Your task to perform on an android device: Go to Google maps Image 0: 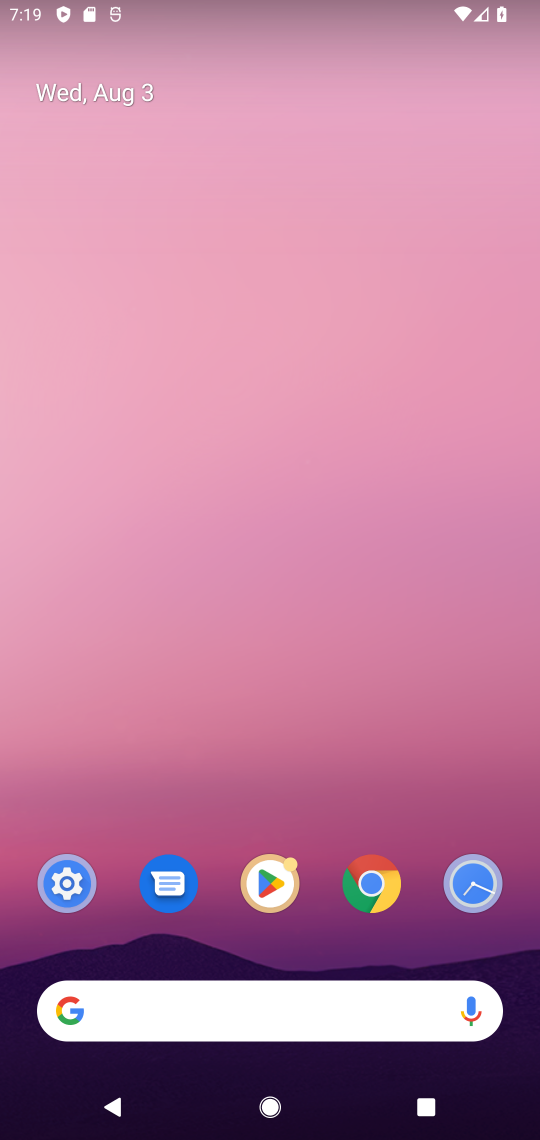
Step 0: drag from (399, 825) to (248, 246)
Your task to perform on an android device: Go to Google maps Image 1: 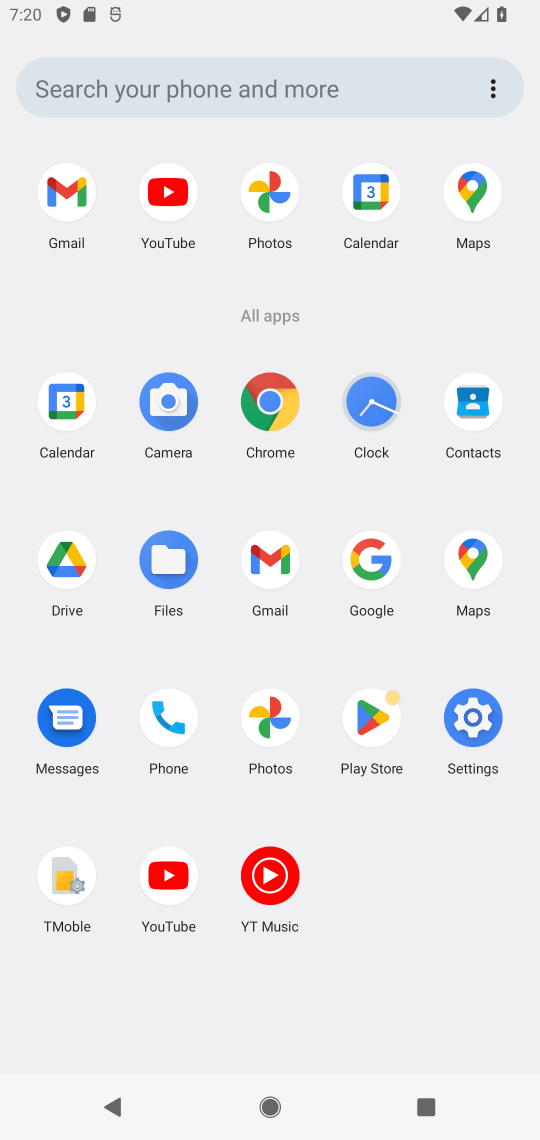
Step 1: click (489, 570)
Your task to perform on an android device: Go to Google maps Image 2: 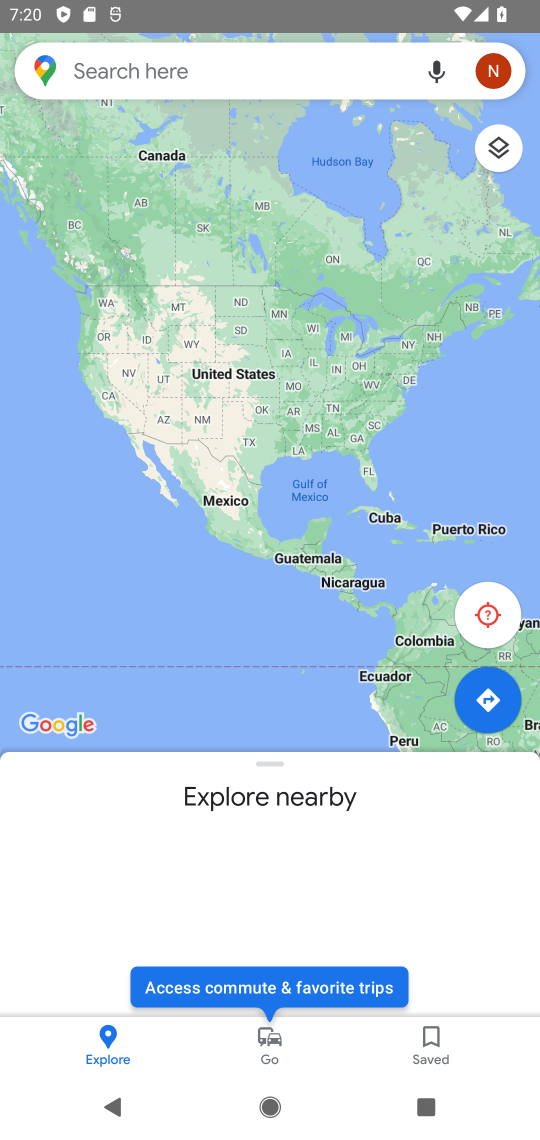
Step 2: task complete